Your task to perform on an android device: check storage Image 0: 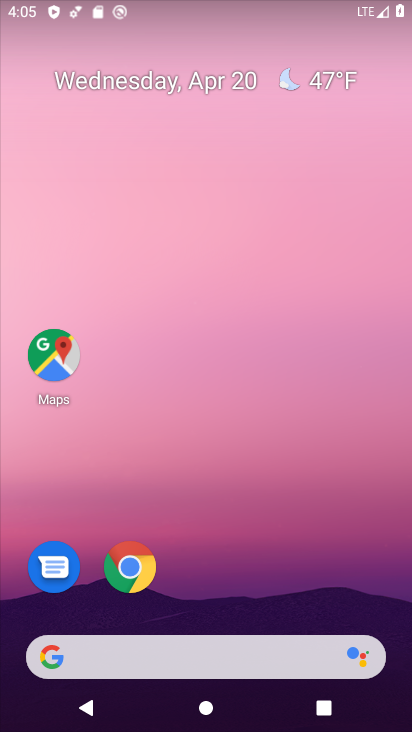
Step 0: drag from (248, 436) to (244, 23)
Your task to perform on an android device: check storage Image 1: 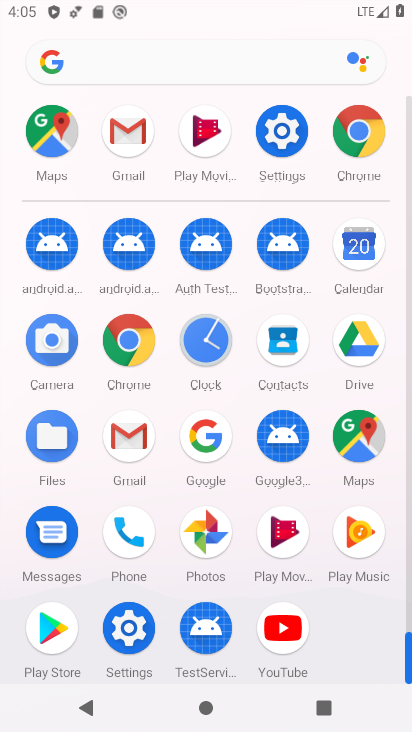
Step 1: drag from (14, 479) to (15, 253)
Your task to perform on an android device: check storage Image 2: 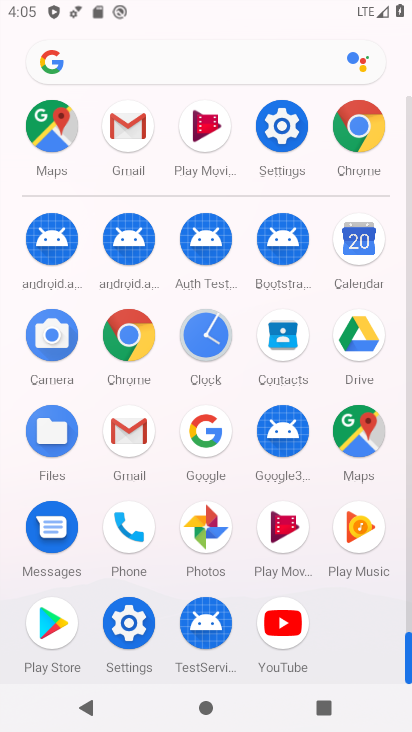
Step 2: click (124, 624)
Your task to perform on an android device: check storage Image 3: 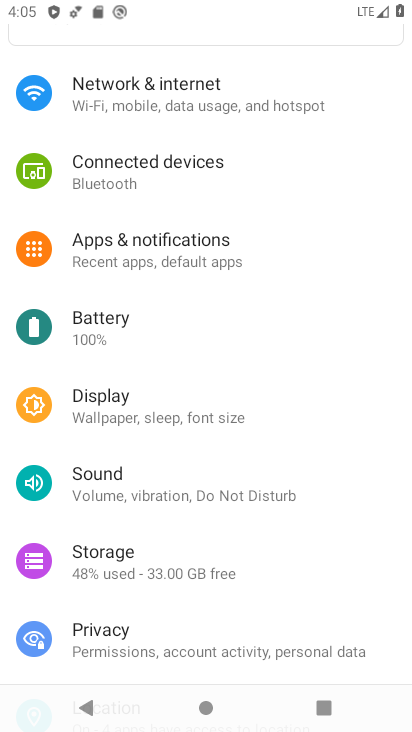
Step 3: drag from (230, 608) to (269, 231)
Your task to perform on an android device: check storage Image 4: 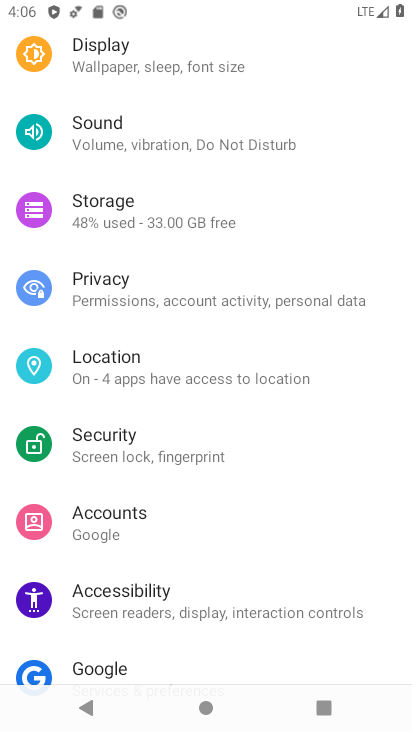
Step 4: click (142, 204)
Your task to perform on an android device: check storage Image 5: 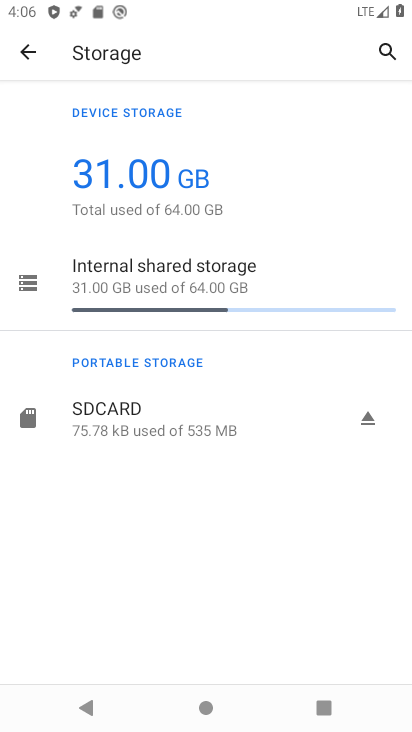
Step 5: task complete